Your task to perform on an android device: Open Google Image 0: 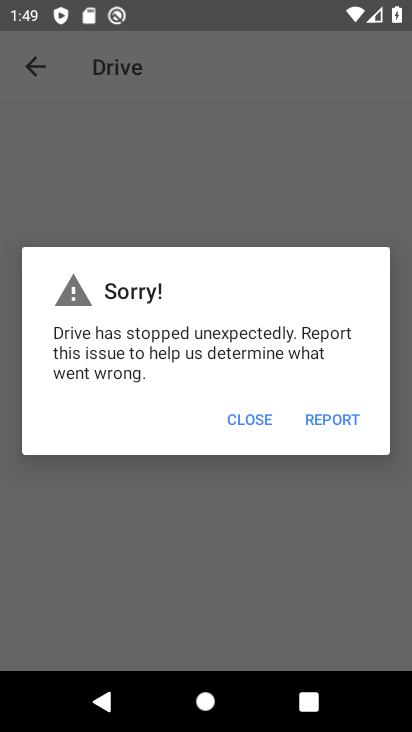
Step 0: press home button
Your task to perform on an android device: Open Google Image 1: 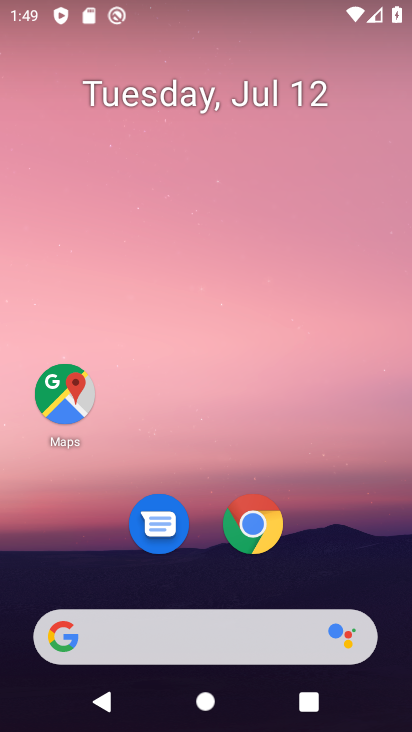
Step 1: click (68, 404)
Your task to perform on an android device: Open Google Image 2: 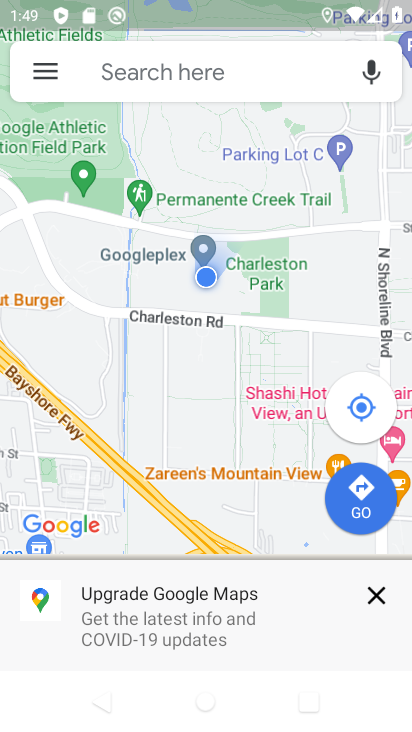
Step 2: task complete